Your task to perform on an android device: clear history in the chrome app Image 0: 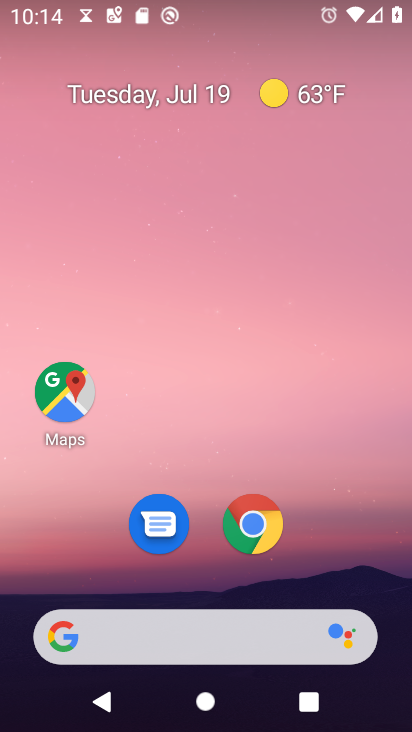
Step 0: press home button
Your task to perform on an android device: clear history in the chrome app Image 1: 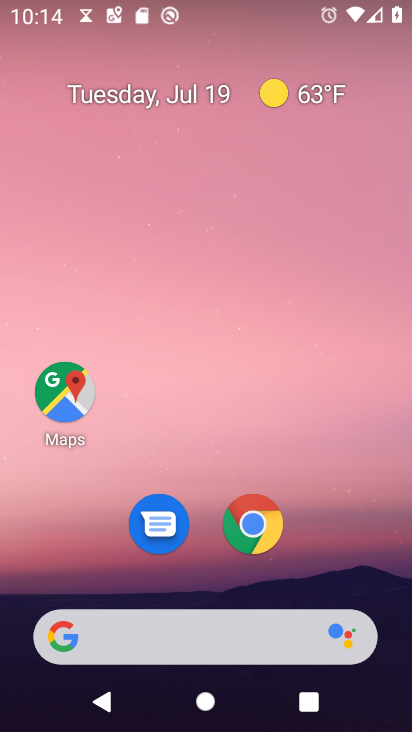
Step 1: click (266, 518)
Your task to perform on an android device: clear history in the chrome app Image 2: 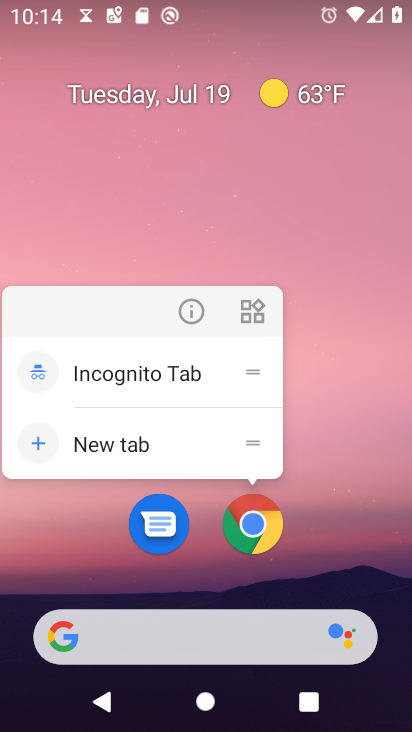
Step 2: click (255, 519)
Your task to perform on an android device: clear history in the chrome app Image 3: 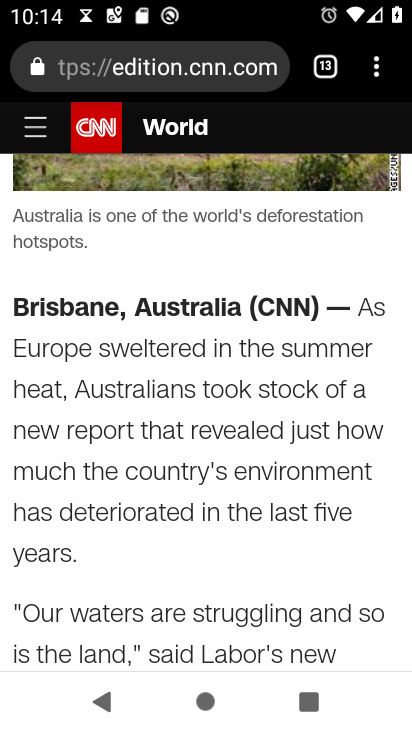
Step 3: drag from (377, 67) to (226, 371)
Your task to perform on an android device: clear history in the chrome app Image 4: 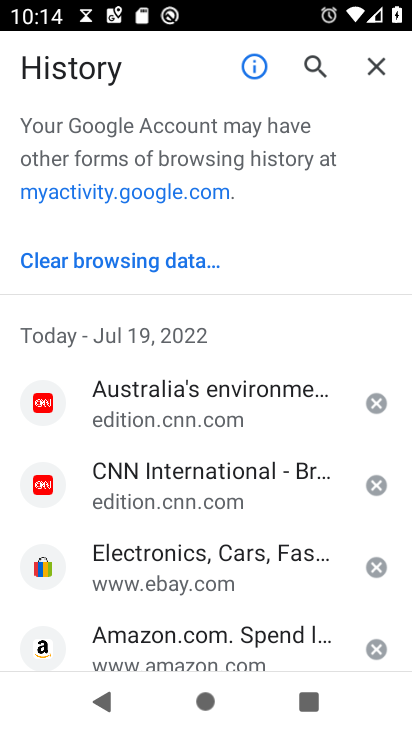
Step 4: click (111, 263)
Your task to perform on an android device: clear history in the chrome app Image 5: 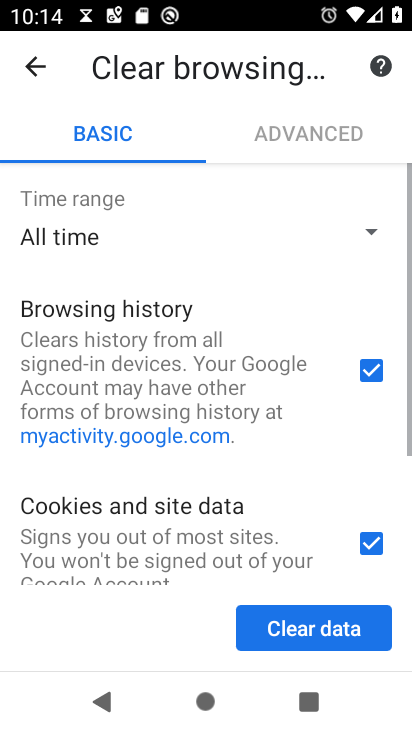
Step 5: drag from (298, 508) to (409, 174)
Your task to perform on an android device: clear history in the chrome app Image 6: 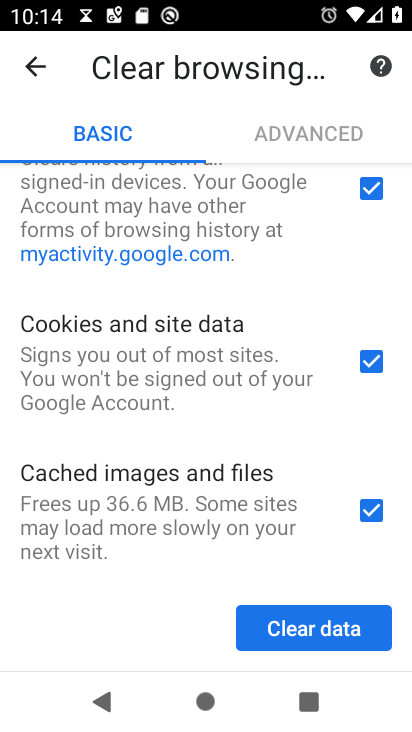
Step 6: click (311, 635)
Your task to perform on an android device: clear history in the chrome app Image 7: 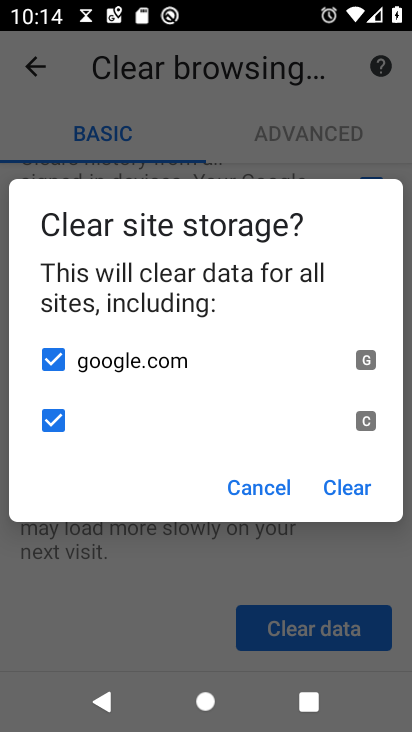
Step 7: click (339, 480)
Your task to perform on an android device: clear history in the chrome app Image 8: 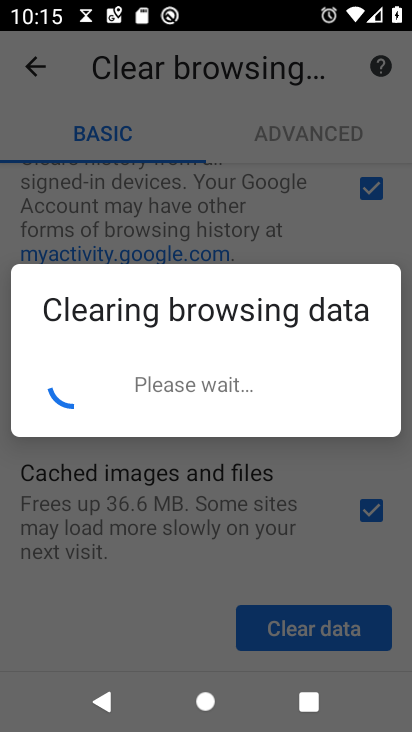
Step 8: click (297, 628)
Your task to perform on an android device: clear history in the chrome app Image 9: 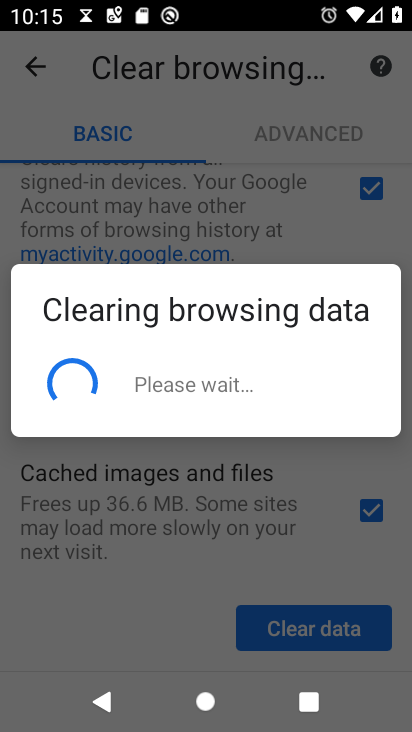
Step 9: task complete